Your task to perform on an android device: uninstall "Truecaller" Image 0: 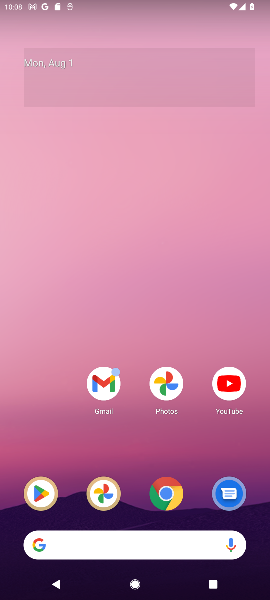
Step 0: drag from (74, 515) to (133, 79)
Your task to perform on an android device: uninstall "Truecaller" Image 1: 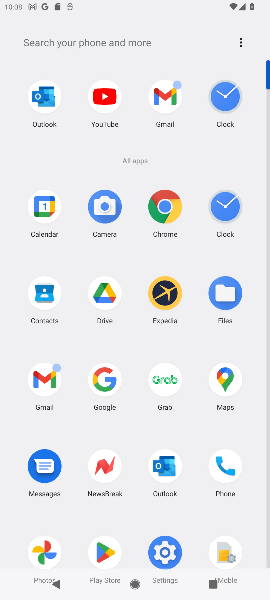
Step 1: task complete